Your task to perform on an android device: Open settings on Google Maps Image 0: 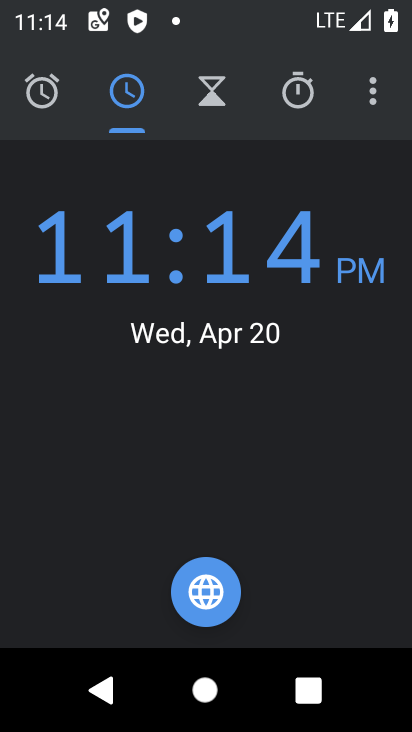
Step 0: press home button
Your task to perform on an android device: Open settings on Google Maps Image 1: 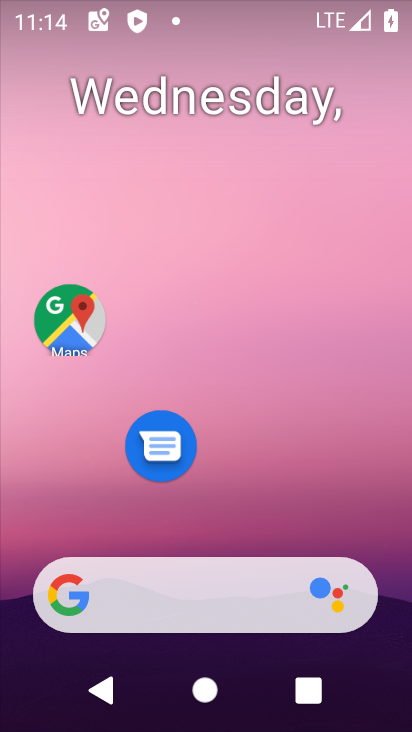
Step 1: click (90, 319)
Your task to perform on an android device: Open settings on Google Maps Image 2: 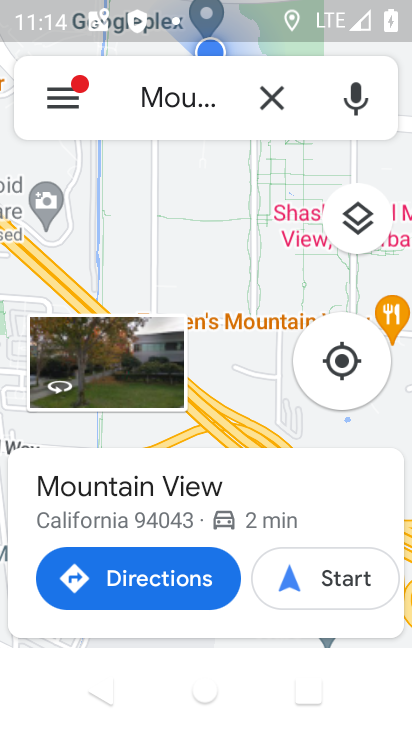
Step 2: click (69, 101)
Your task to perform on an android device: Open settings on Google Maps Image 3: 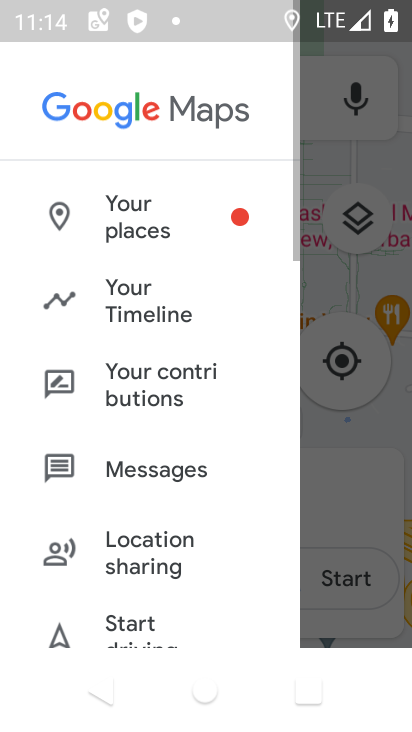
Step 3: drag from (151, 559) to (145, 148)
Your task to perform on an android device: Open settings on Google Maps Image 4: 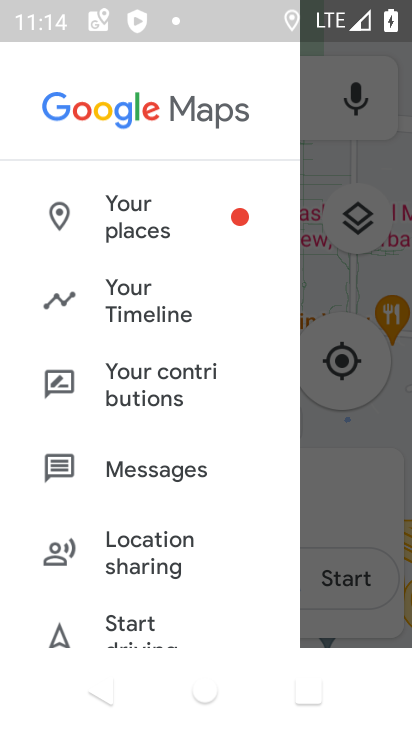
Step 4: drag from (99, 604) to (135, 190)
Your task to perform on an android device: Open settings on Google Maps Image 5: 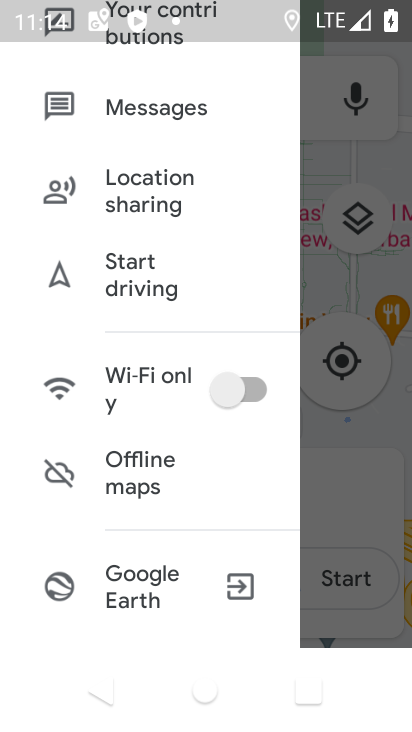
Step 5: drag from (136, 557) to (119, 182)
Your task to perform on an android device: Open settings on Google Maps Image 6: 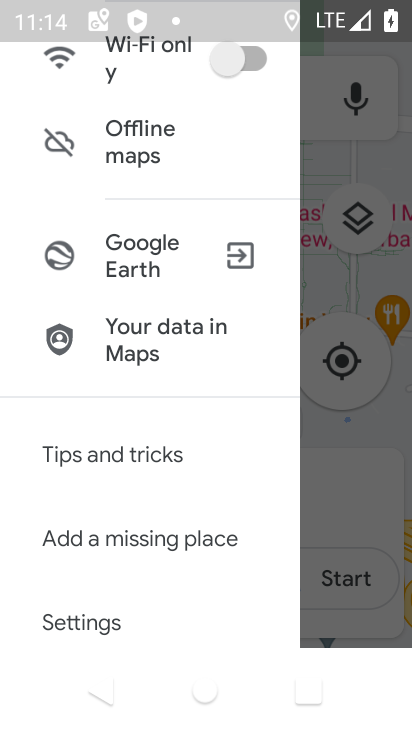
Step 6: click (61, 616)
Your task to perform on an android device: Open settings on Google Maps Image 7: 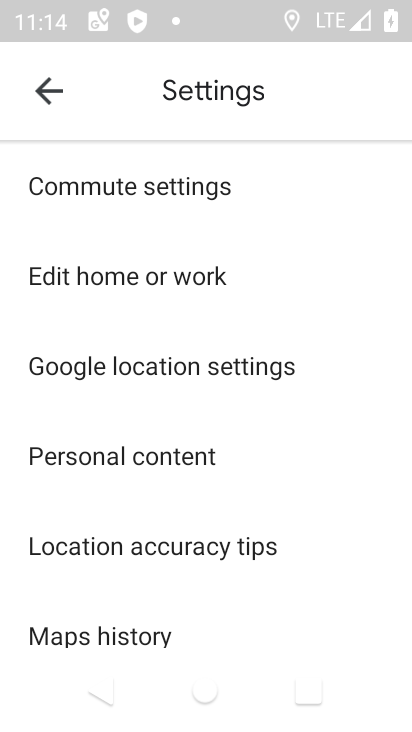
Step 7: task complete